Your task to perform on an android device: delete the emails in spam in the gmail app Image 0: 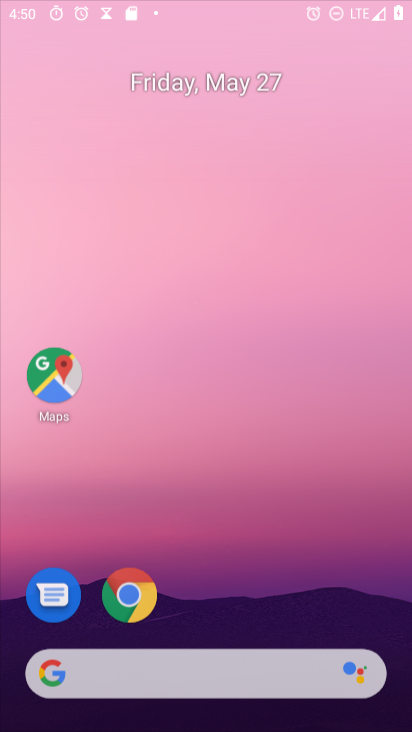
Step 0: drag from (207, 722) to (210, 211)
Your task to perform on an android device: delete the emails in spam in the gmail app Image 1: 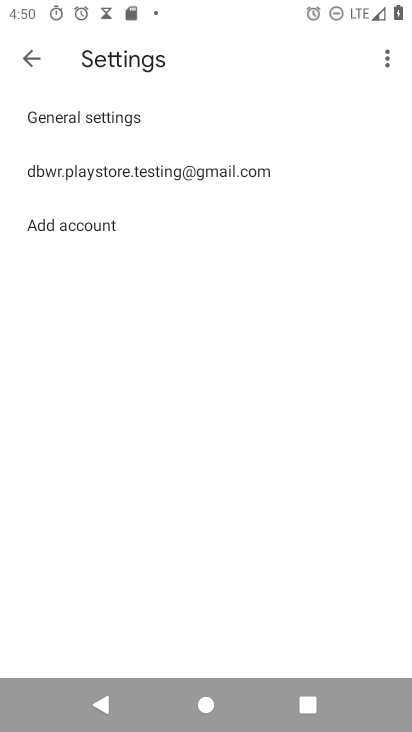
Step 1: press home button
Your task to perform on an android device: delete the emails in spam in the gmail app Image 2: 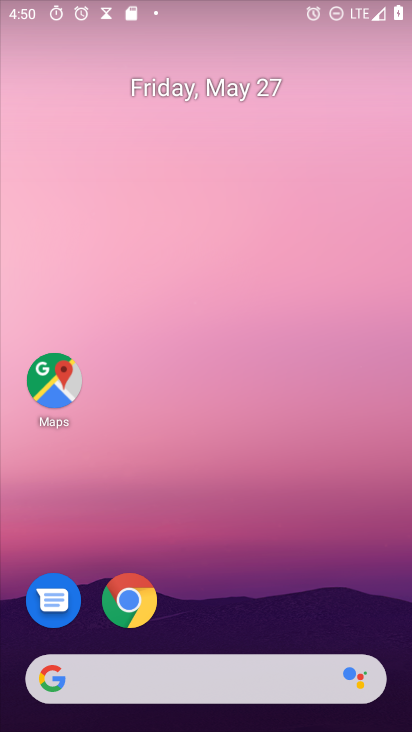
Step 2: drag from (220, 721) to (223, 241)
Your task to perform on an android device: delete the emails in spam in the gmail app Image 3: 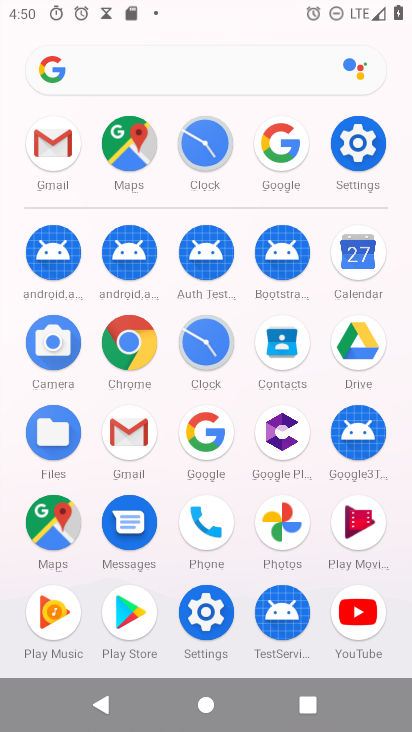
Step 3: click (128, 429)
Your task to perform on an android device: delete the emails in spam in the gmail app Image 4: 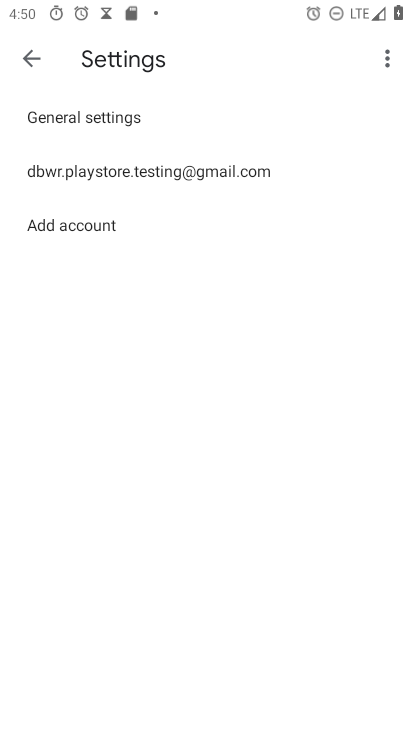
Step 4: click (33, 60)
Your task to perform on an android device: delete the emails in spam in the gmail app Image 5: 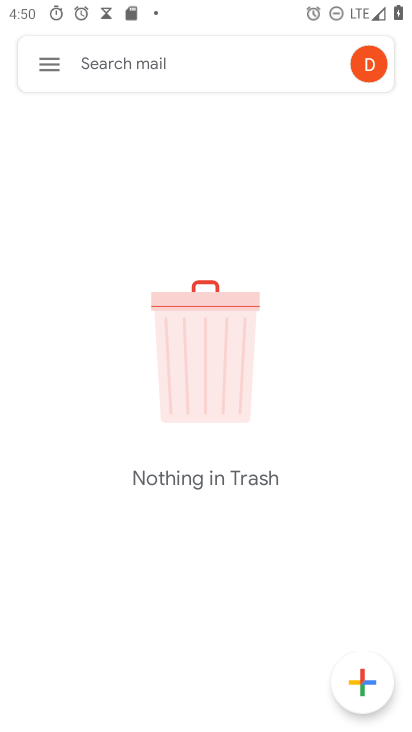
Step 5: click (37, 58)
Your task to perform on an android device: delete the emails in spam in the gmail app Image 6: 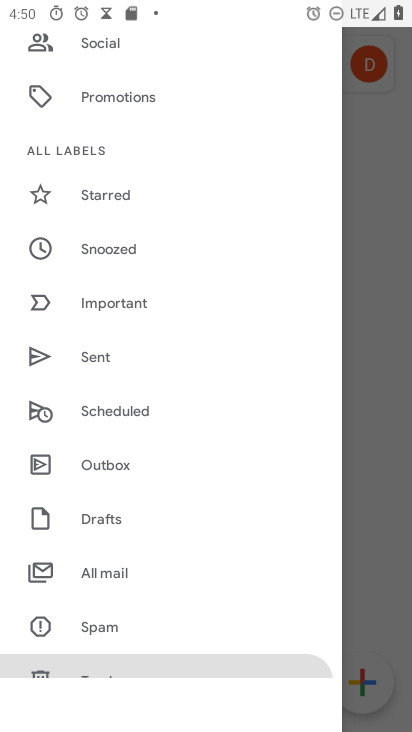
Step 6: click (103, 628)
Your task to perform on an android device: delete the emails in spam in the gmail app Image 7: 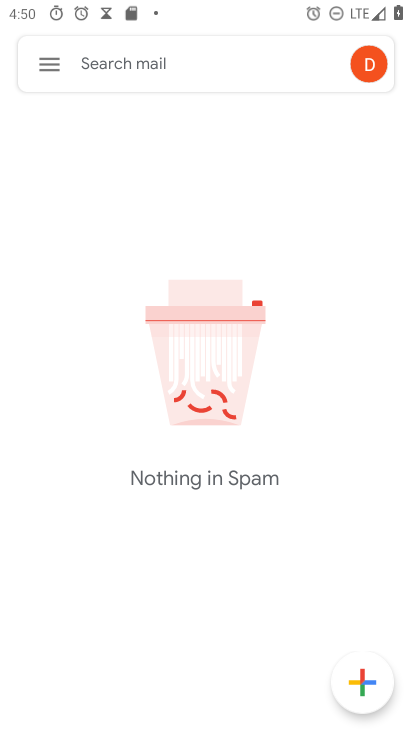
Step 7: task complete